Your task to perform on an android device: read, delete, or share a saved page in the chrome app Image 0: 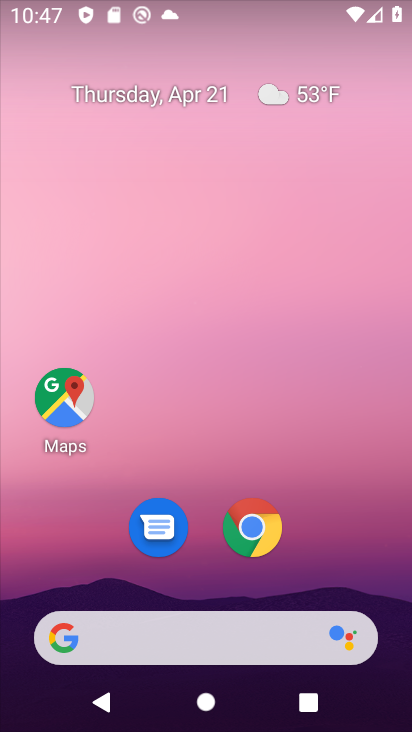
Step 0: drag from (347, 562) to (365, 155)
Your task to perform on an android device: read, delete, or share a saved page in the chrome app Image 1: 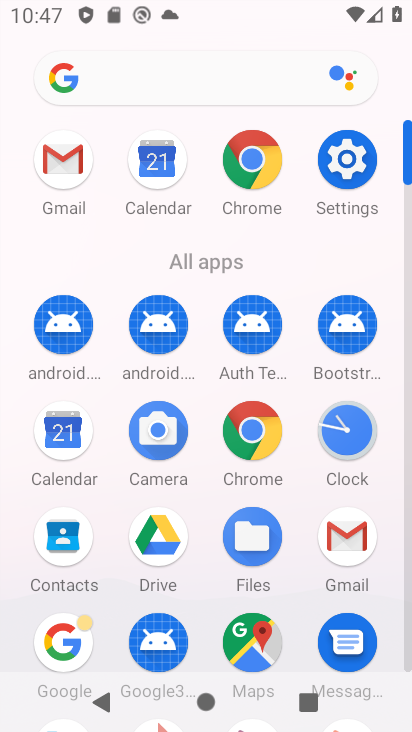
Step 1: click (256, 433)
Your task to perform on an android device: read, delete, or share a saved page in the chrome app Image 2: 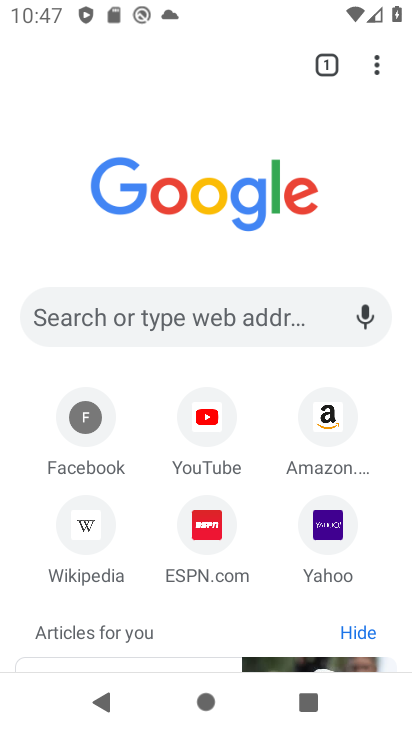
Step 2: click (379, 65)
Your task to perform on an android device: read, delete, or share a saved page in the chrome app Image 3: 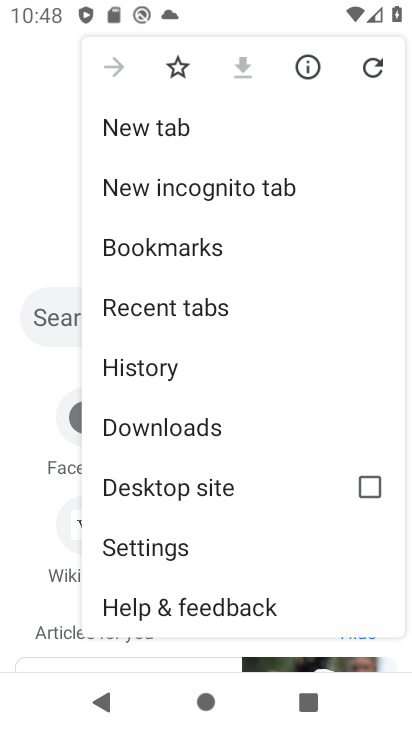
Step 3: drag from (303, 452) to (307, 344)
Your task to perform on an android device: read, delete, or share a saved page in the chrome app Image 4: 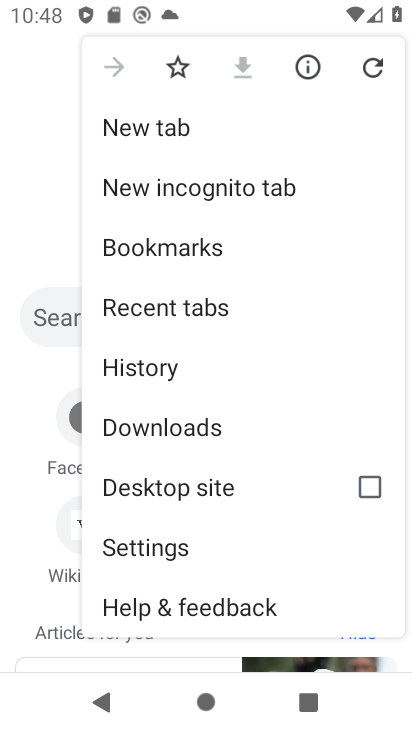
Step 4: click (238, 413)
Your task to perform on an android device: read, delete, or share a saved page in the chrome app Image 5: 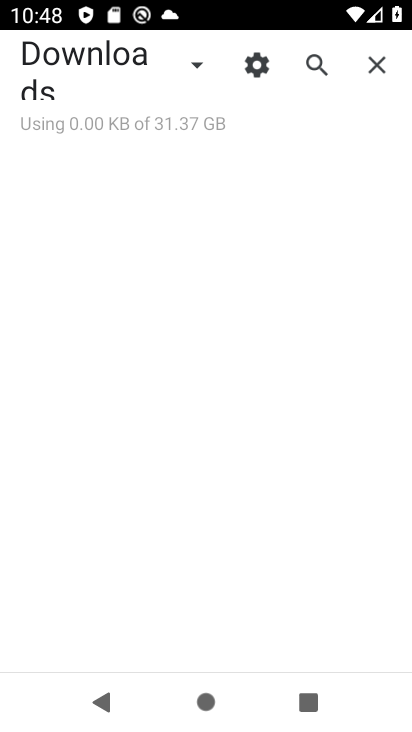
Step 5: click (196, 58)
Your task to perform on an android device: read, delete, or share a saved page in the chrome app Image 6: 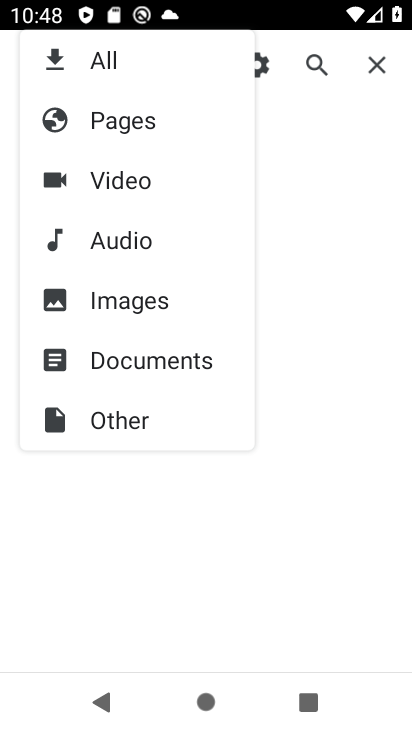
Step 6: click (131, 121)
Your task to perform on an android device: read, delete, or share a saved page in the chrome app Image 7: 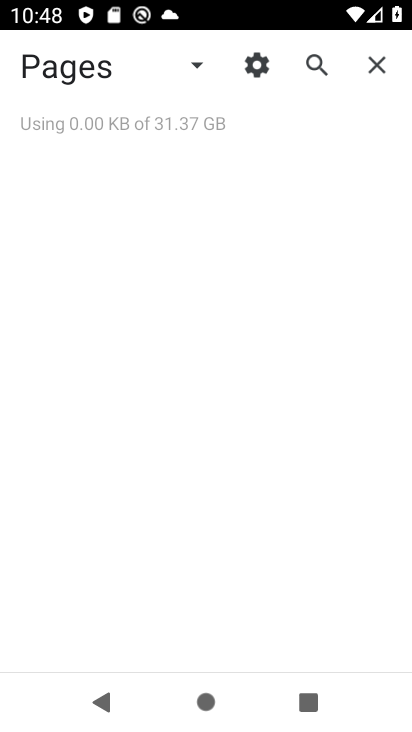
Step 7: task complete